Your task to perform on an android device: Search for sushi restaurants on Maps Image 0: 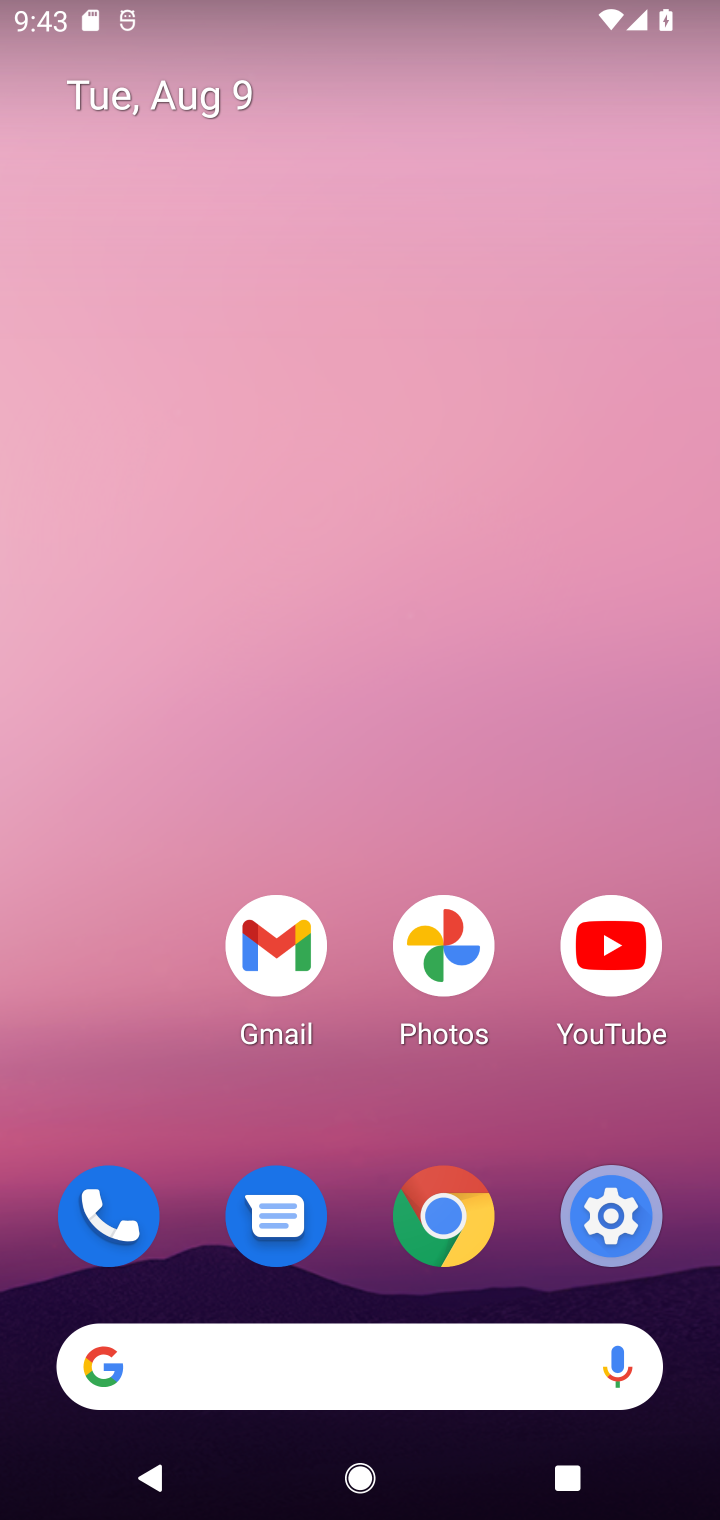
Step 0: drag from (347, 1081) to (367, 77)
Your task to perform on an android device: Search for sushi restaurants on Maps Image 1: 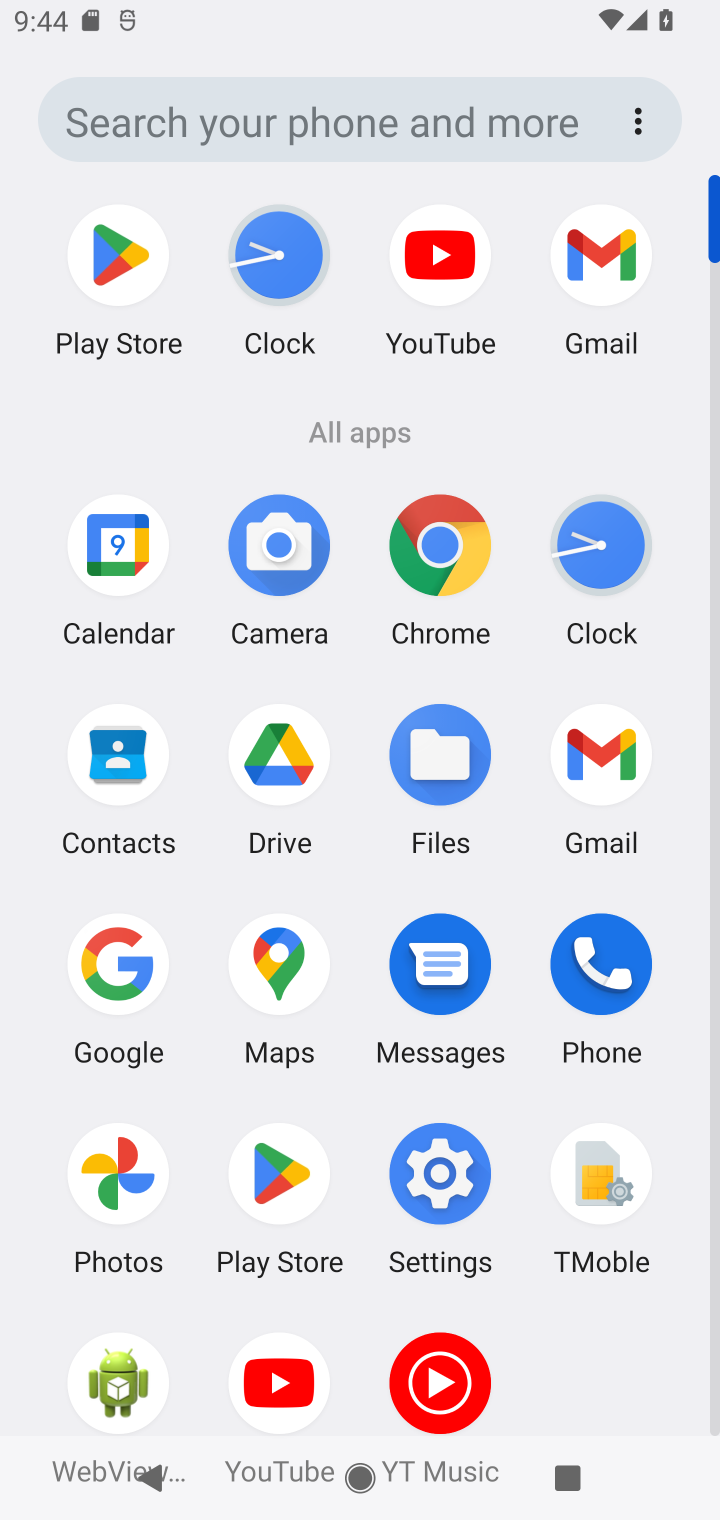
Step 1: click (263, 973)
Your task to perform on an android device: Search for sushi restaurants on Maps Image 2: 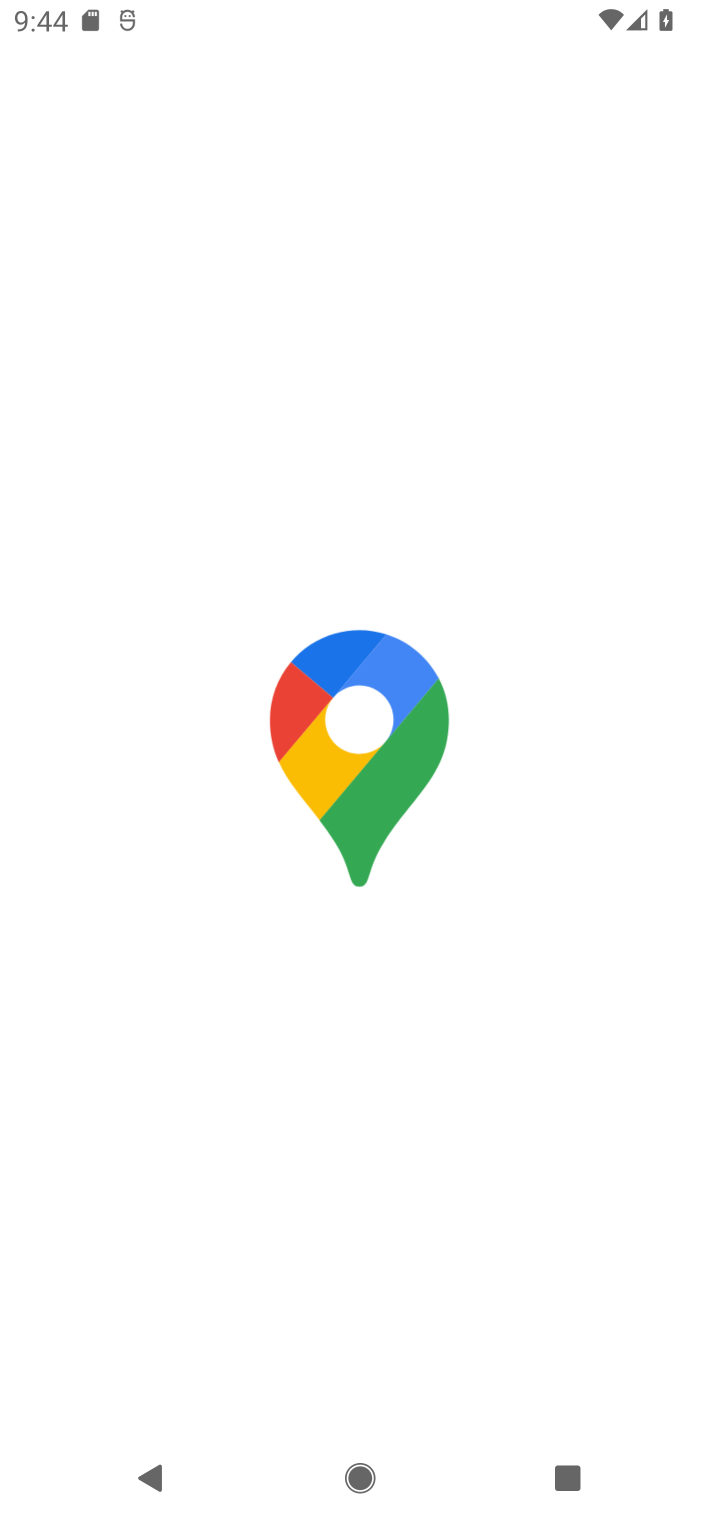
Step 2: task complete